Your task to perform on an android device: allow notifications from all sites in the chrome app Image 0: 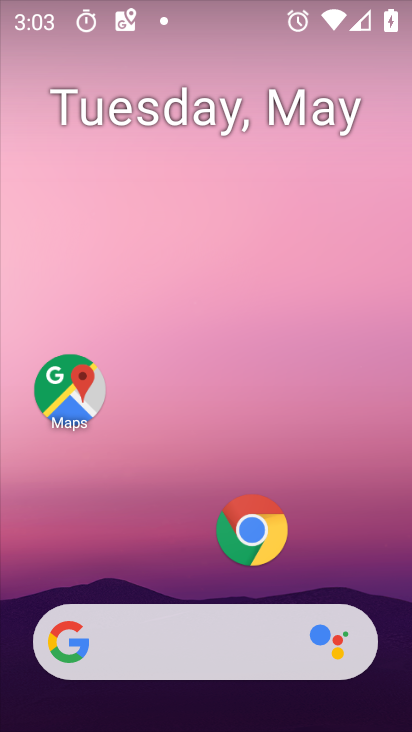
Step 0: click (253, 522)
Your task to perform on an android device: allow notifications from all sites in the chrome app Image 1: 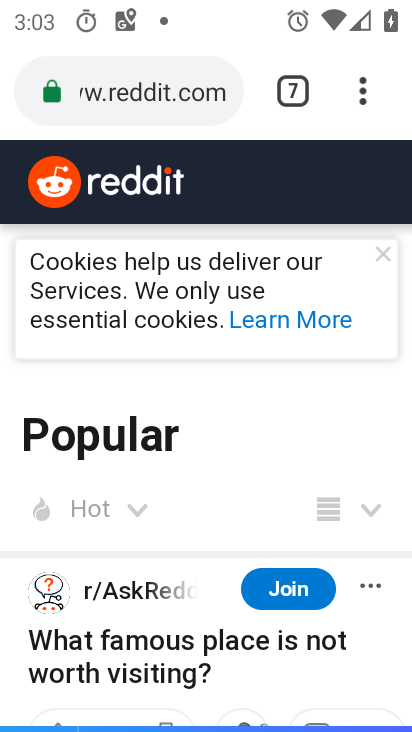
Step 1: click (374, 74)
Your task to perform on an android device: allow notifications from all sites in the chrome app Image 2: 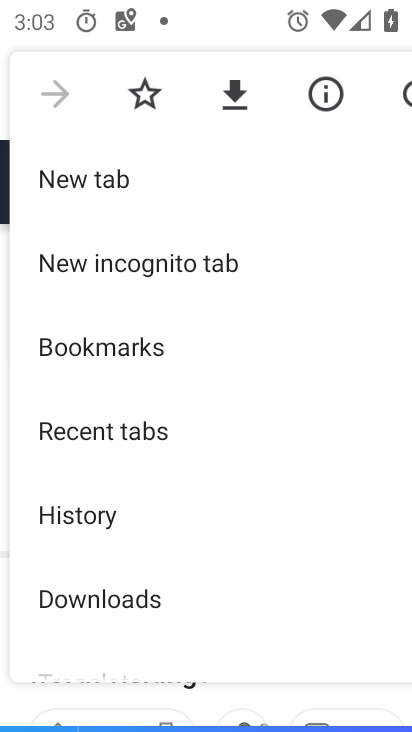
Step 2: drag from (199, 606) to (141, 153)
Your task to perform on an android device: allow notifications from all sites in the chrome app Image 3: 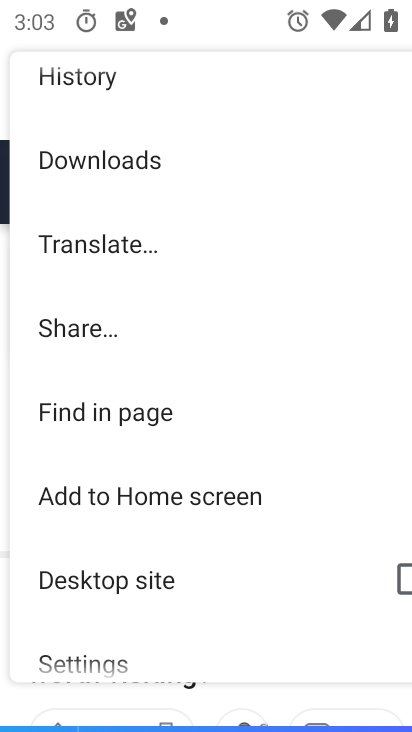
Step 3: click (149, 657)
Your task to perform on an android device: allow notifications from all sites in the chrome app Image 4: 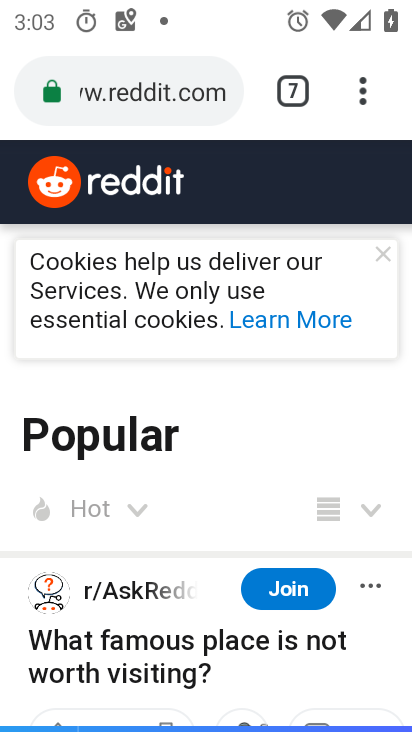
Step 4: drag from (148, 658) to (32, 117)
Your task to perform on an android device: allow notifications from all sites in the chrome app Image 5: 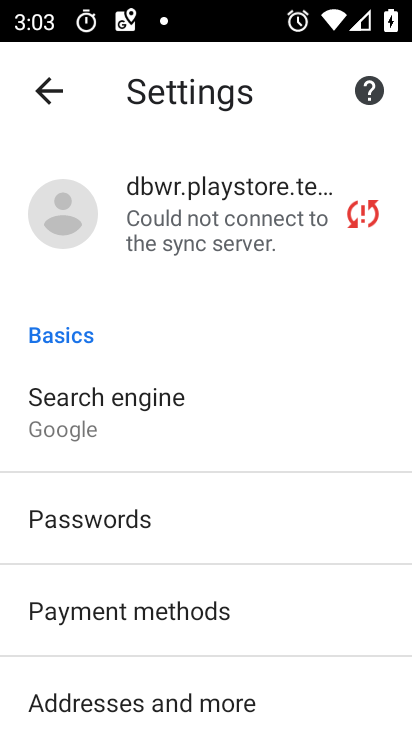
Step 5: drag from (172, 555) to (107, 326)
Your task to perform on an android device: allow notifications from all sites in the chrome app Image 6: 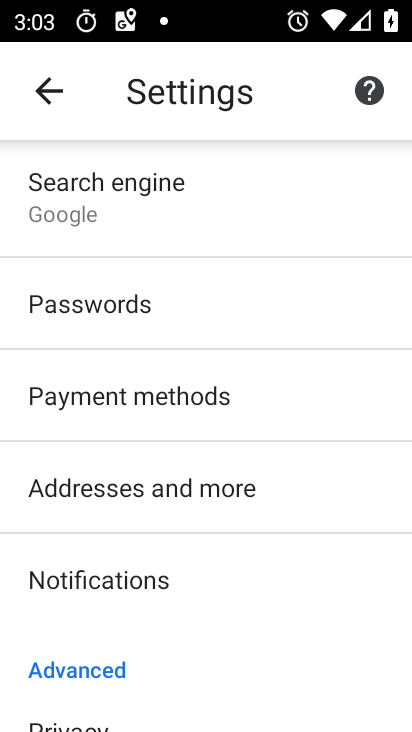
Step 6: drag from (128, 410) to (84, 9)
Your task to perform on an android device: allow notifications from all sites in the chrome app Image 7: 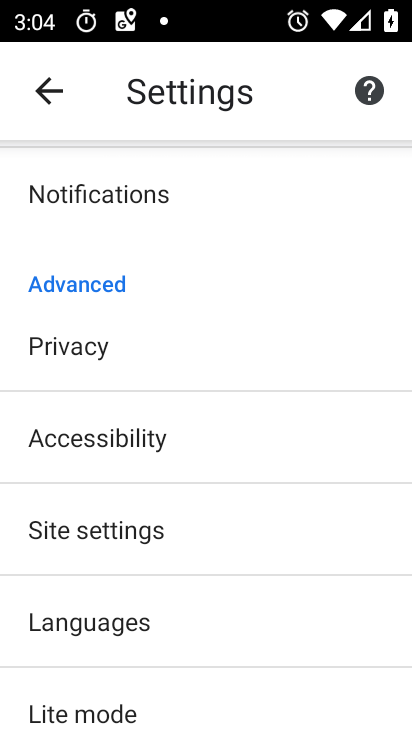
Step 7: click (97, 544)
Your task to perform on an android device: allow notifications from all sites in the chrome app Image 8: 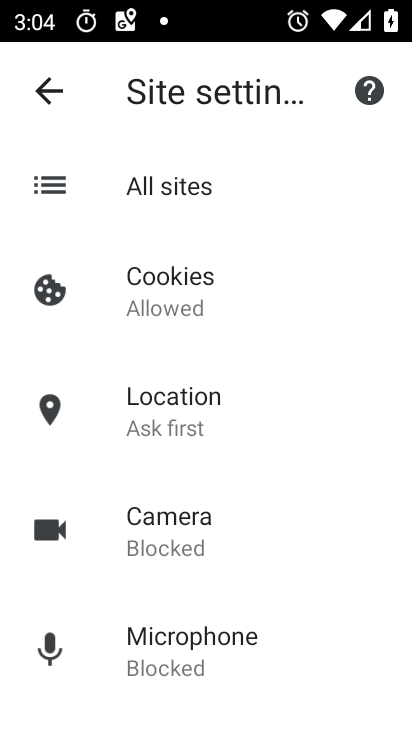
Step 8: drag from (145, 487) to (84, 116)
Your task to perform on an android device: allow notifications from all sites in the chrome app Image 9: 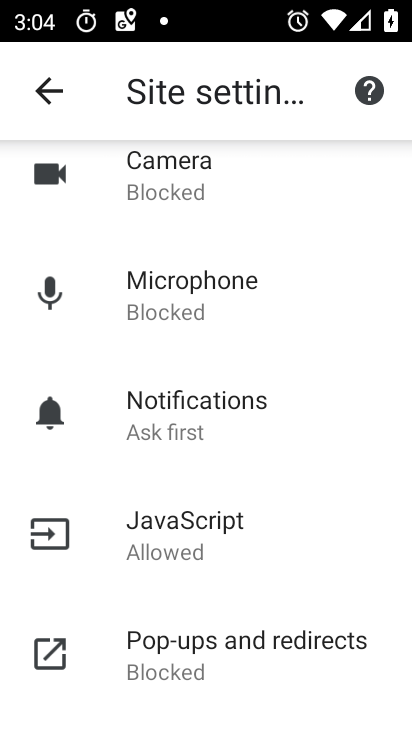
Step 9: click (141, 420)
Your task to perform on an android device: allow notifications from all sites in the chrome app Image 10: 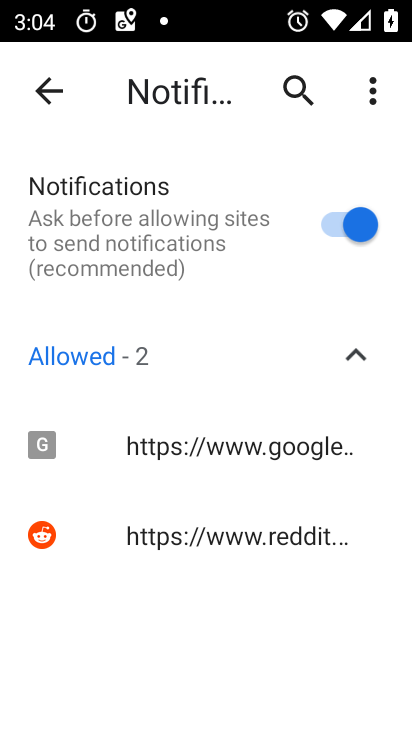
Step 10: task complete